Your task to perform on an android device: open app "TextNow: Call + Text Unlimited" (install if not already installed) and go to login screen Image 0: 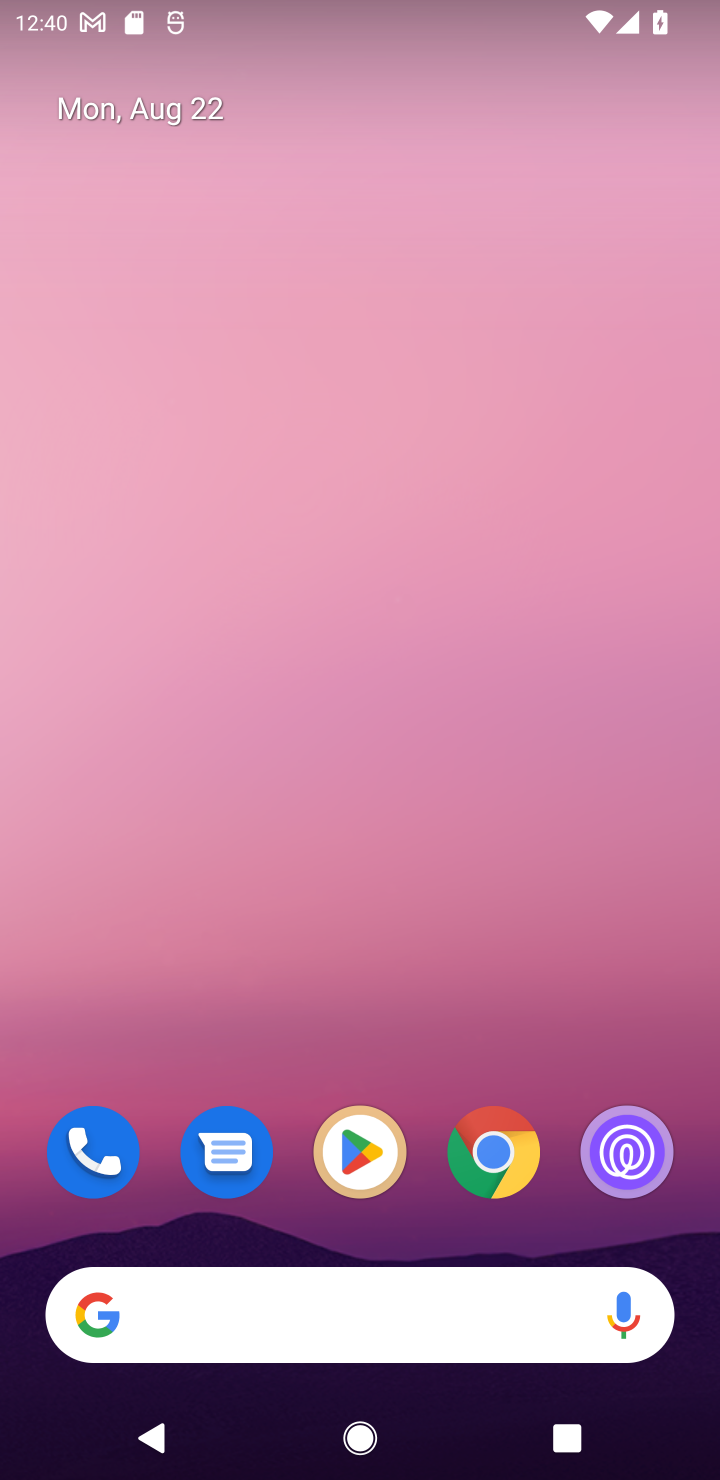
Step 0: click (341, 1188)
Your task to perform on an android device: open app "TextNow: Call + Text Unlimited" (install if not already installed) and go to login screen Image 1: 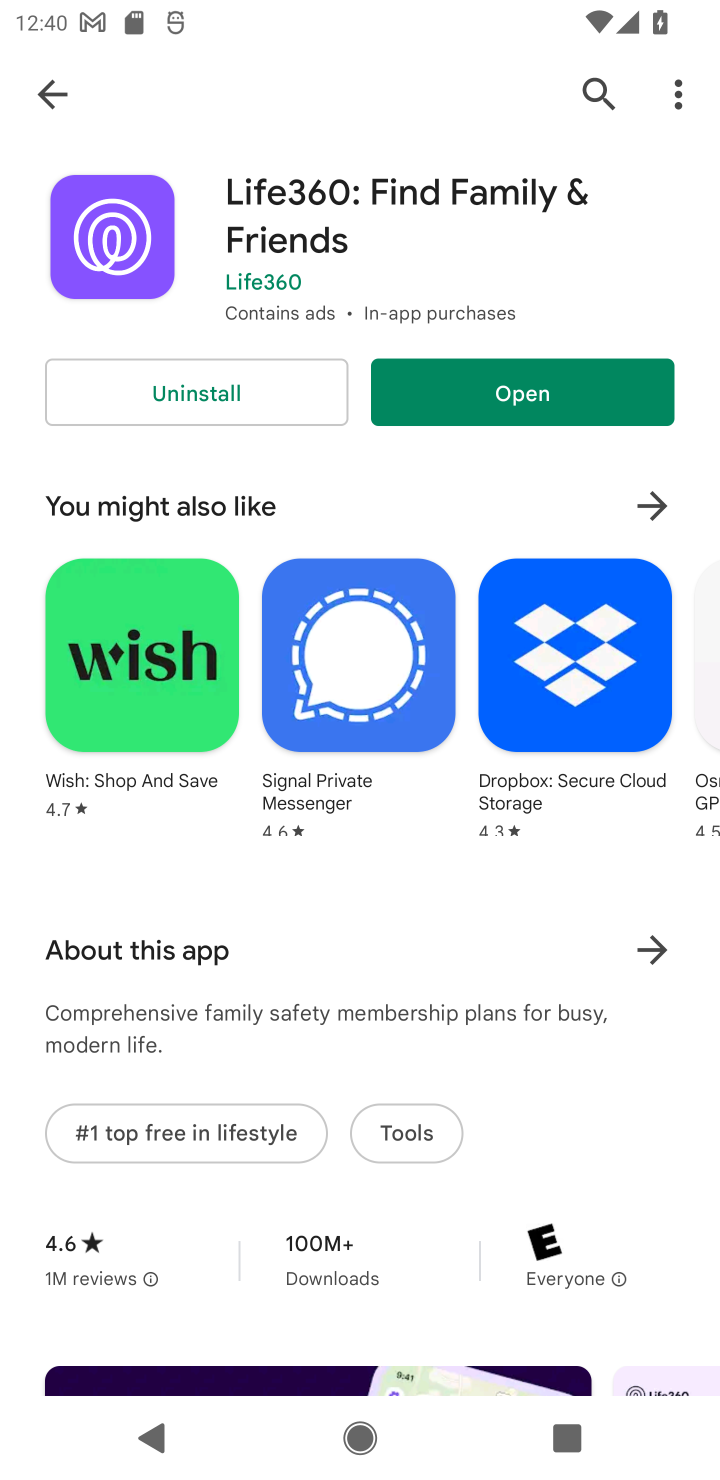
Step 1: click (47, 84)
Your task to perform on an android device: open app "TextNow: Call + Text Unlimited" (install if not already installed) and go to login screen Image 2: 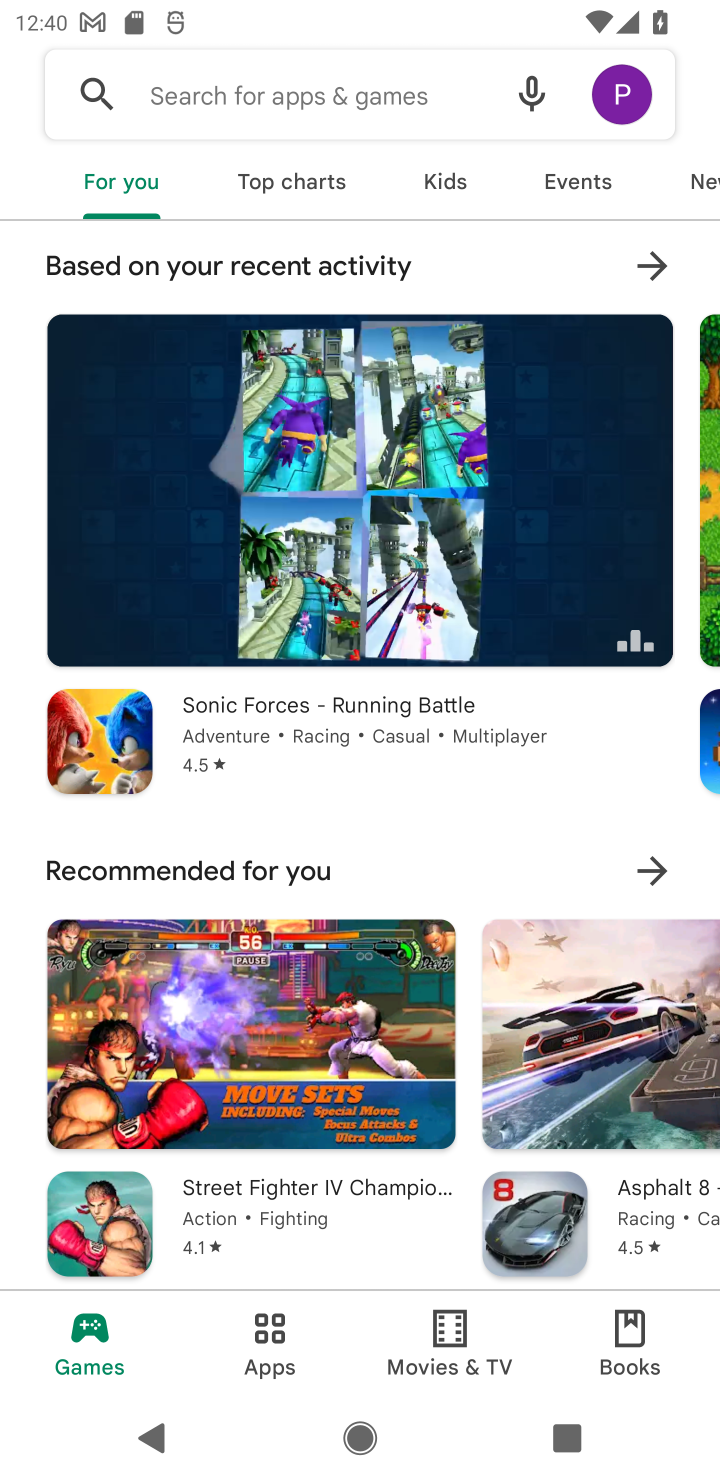
Step 2: click (268, 91)
Your task to perform on an android device: open app "TextNow: Call + Text Unlimited" (install if not already installed) and go to login screen Image 3: 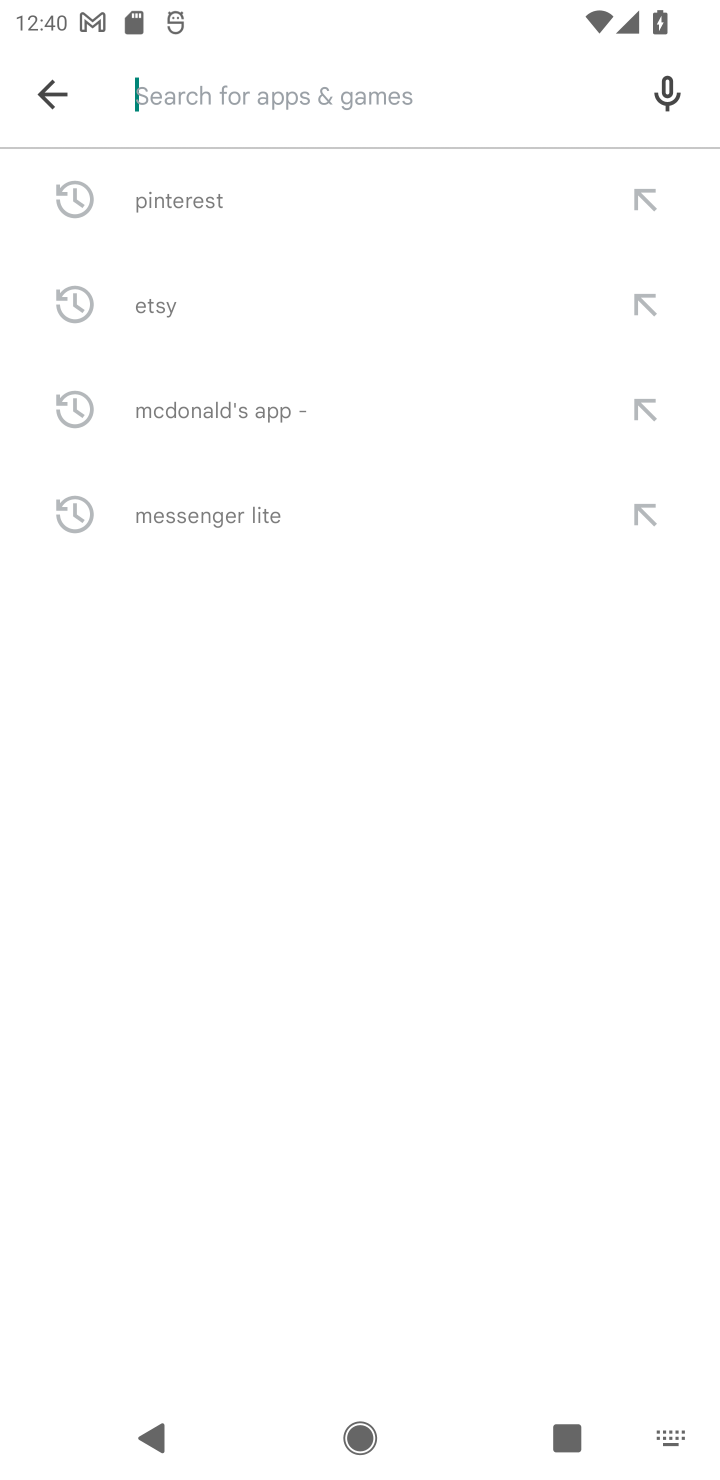
Step 3: type "TextNow: Call + Text Unlimited"
Your task to perform on an android device: open app "TextNow: Call + Text Unlimited" (install if not already installed) and go to login screen Image 4: 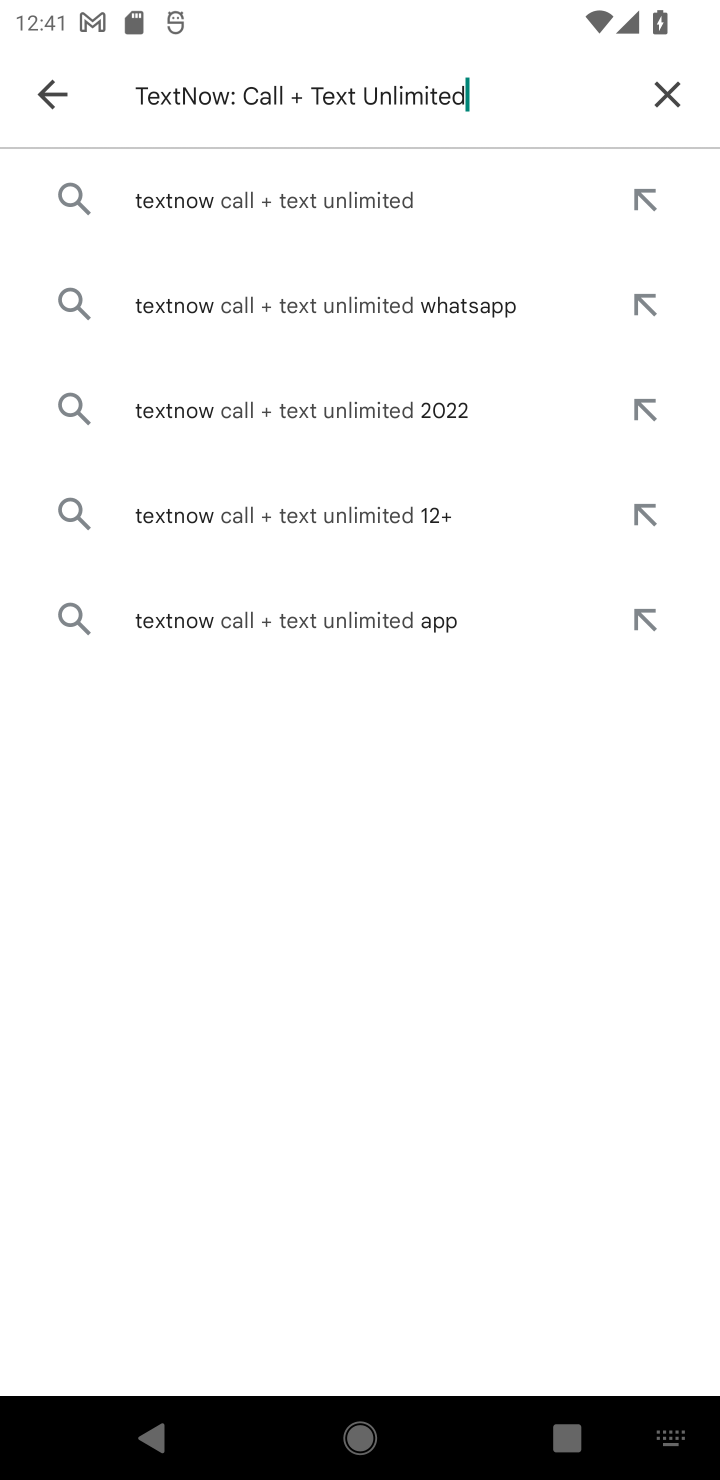
Step 4: click (215, 193)
Your task to perform on an android device: open app "TextNow: Call + Text Unlimited" (install if not already installed) and go to login screen Image 5: 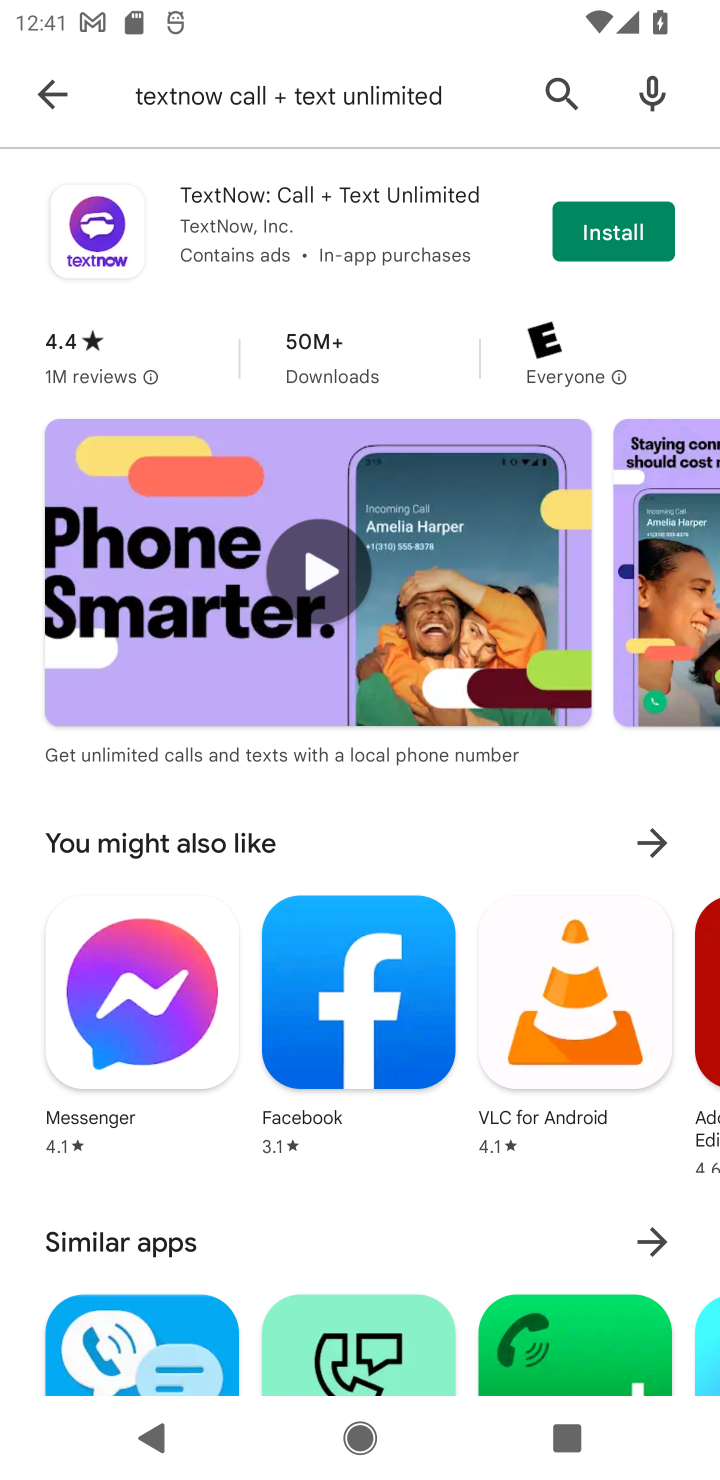
Step 5: click (647, 227)
Your task to perform on an android device: open app "TextNow: Call + Text Unlimited" (install if not already installed) and go to login screen Image 6: 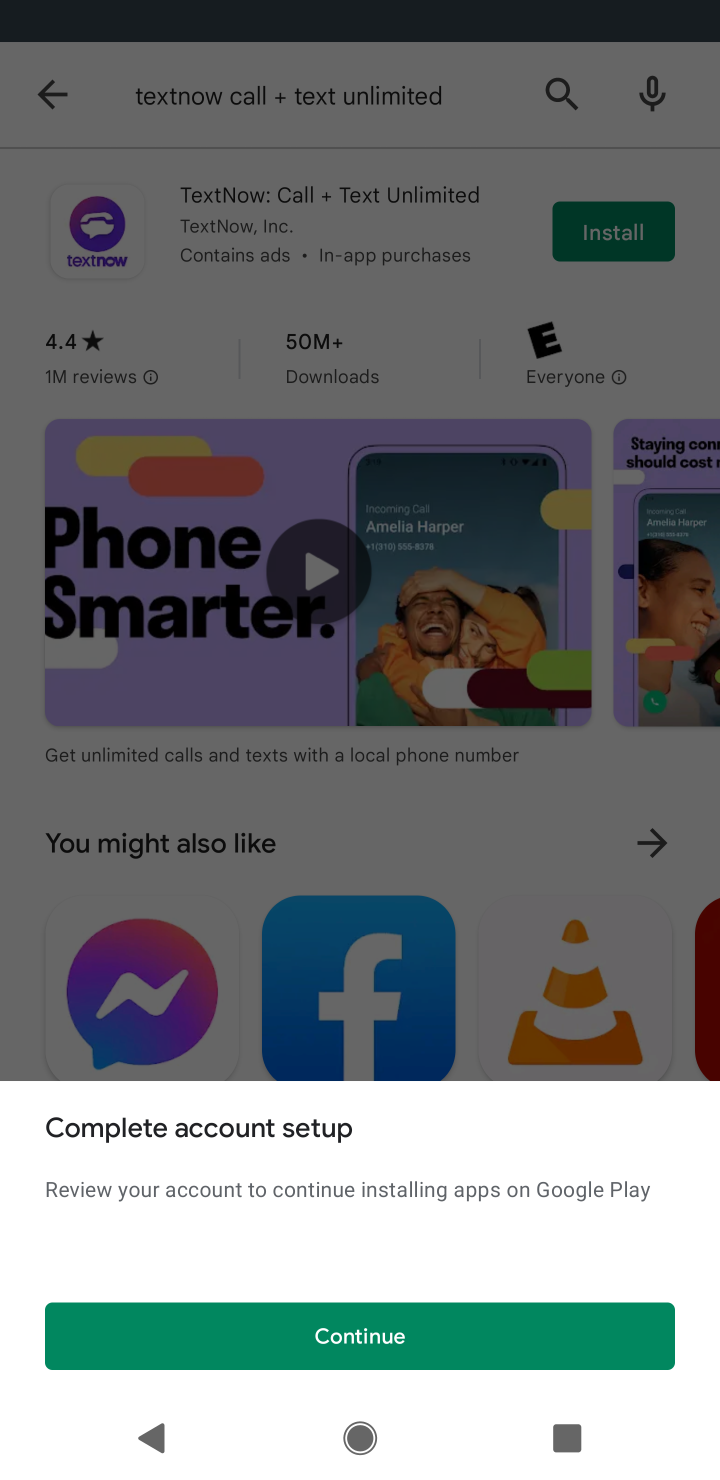
Step 6: click (337, 1322)
Your task to perform on an android device: open app "TextNow: Call + Text Unlimited" (install if not already installed) and go to login screen Image 7: 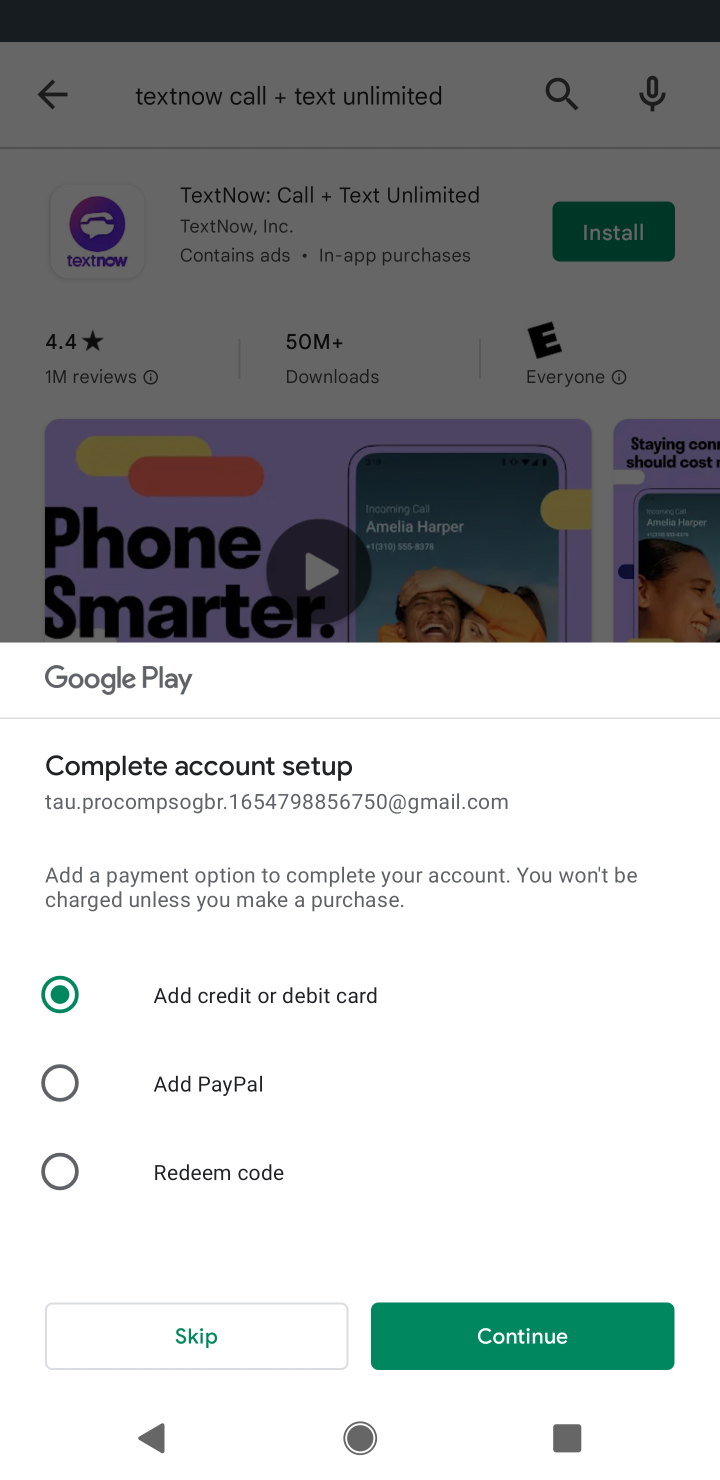
Step 7: click (215, 1335)
Your task to perform on an android device: open app "TextNow: Call + Text Unlimited" (install if not already installed) and go to login screen Image 8: 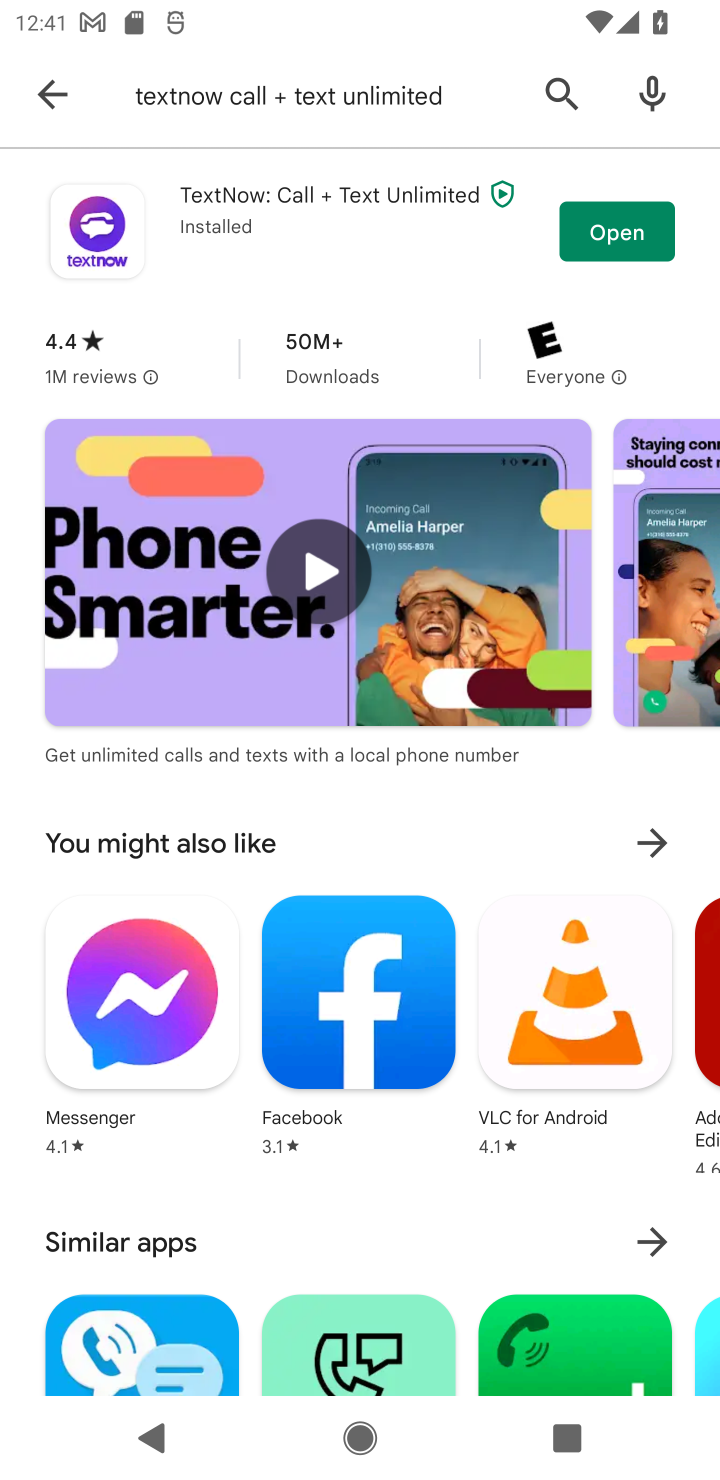
Step 8: click (602, 237)
Your task to perform on an android device: open app "TextNow: Call + Text Unlimited" (install if not already installed) and go to login screen Image 9: 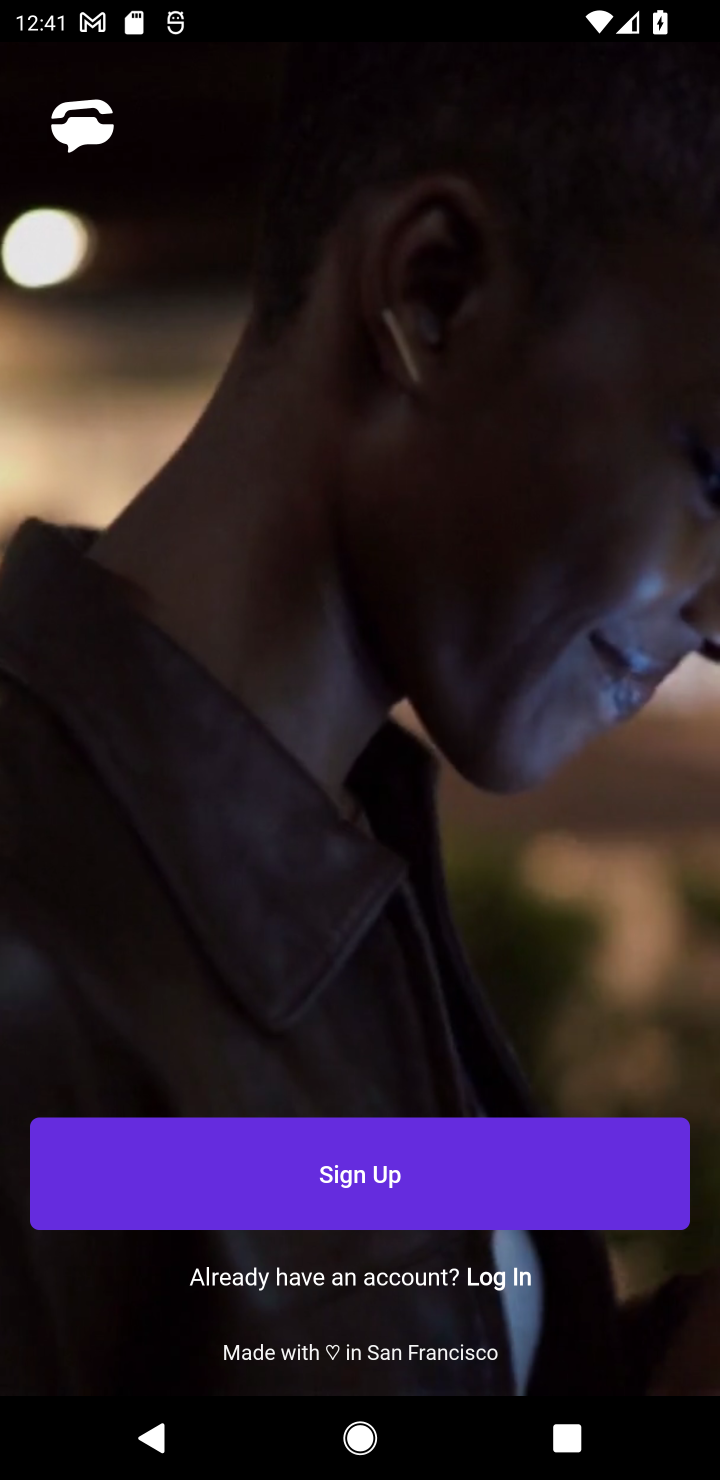
Step 9: task complete